Your task to perform on an android device: What is the recent news? Image 0: 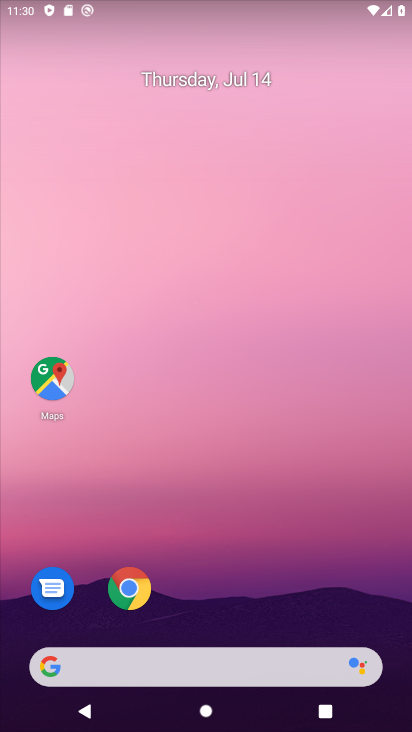
Step 0: drag from (0, 248) to (364, 123)
Your task to perform on an android device: What is the recent news? Image 1: 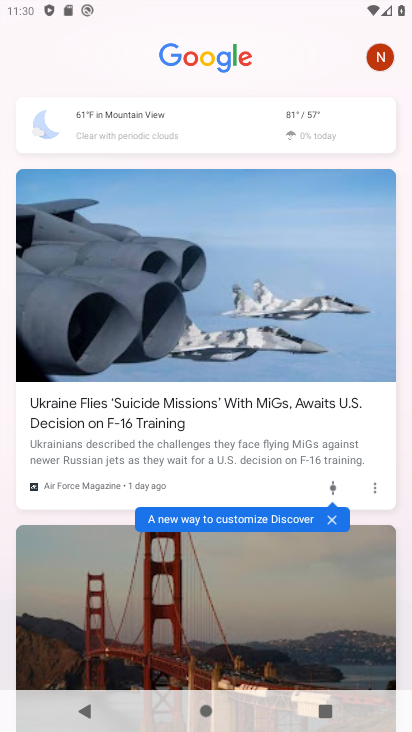
Step 1: task complete